Your task to perform on an android device: turn on wifi Image 0: 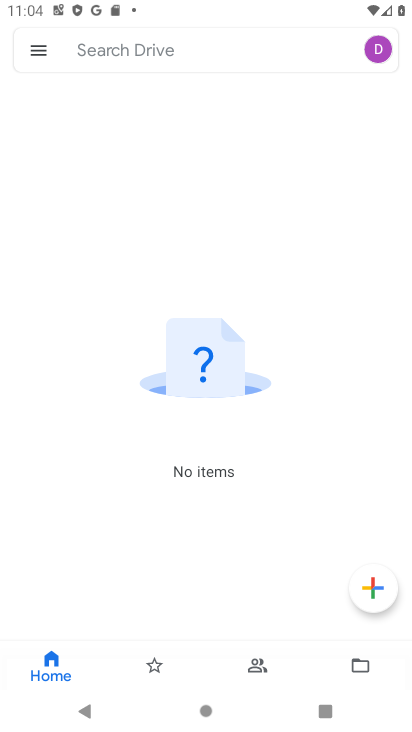
Step 0: press home button
Your task to perform on an android device: turn on wifi Image 1: 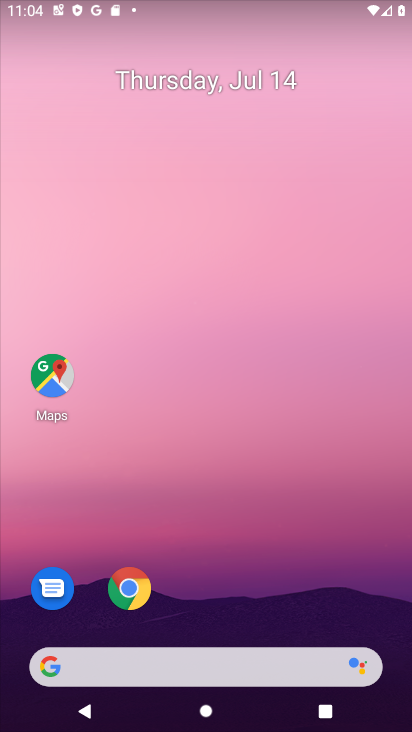
Step 1: drag from (374, 11) to (367, 603)
Your task to perform on an android device: turn on wifi Image 2: 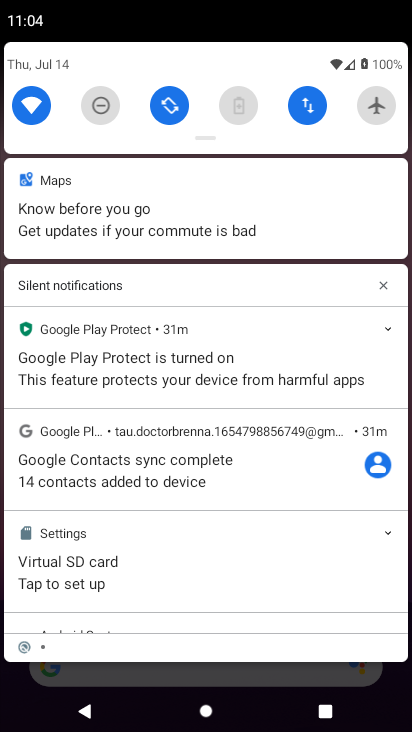
Step 2: click (27, 110)
Your task to perform on an android device: turn on wifi Image 3: 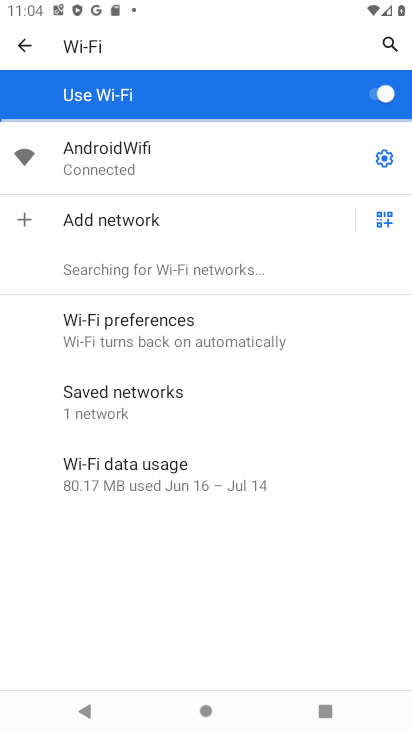
Step 3: task complete